Your task to perform on an android device: uninstall "Google Photos" Image 0: 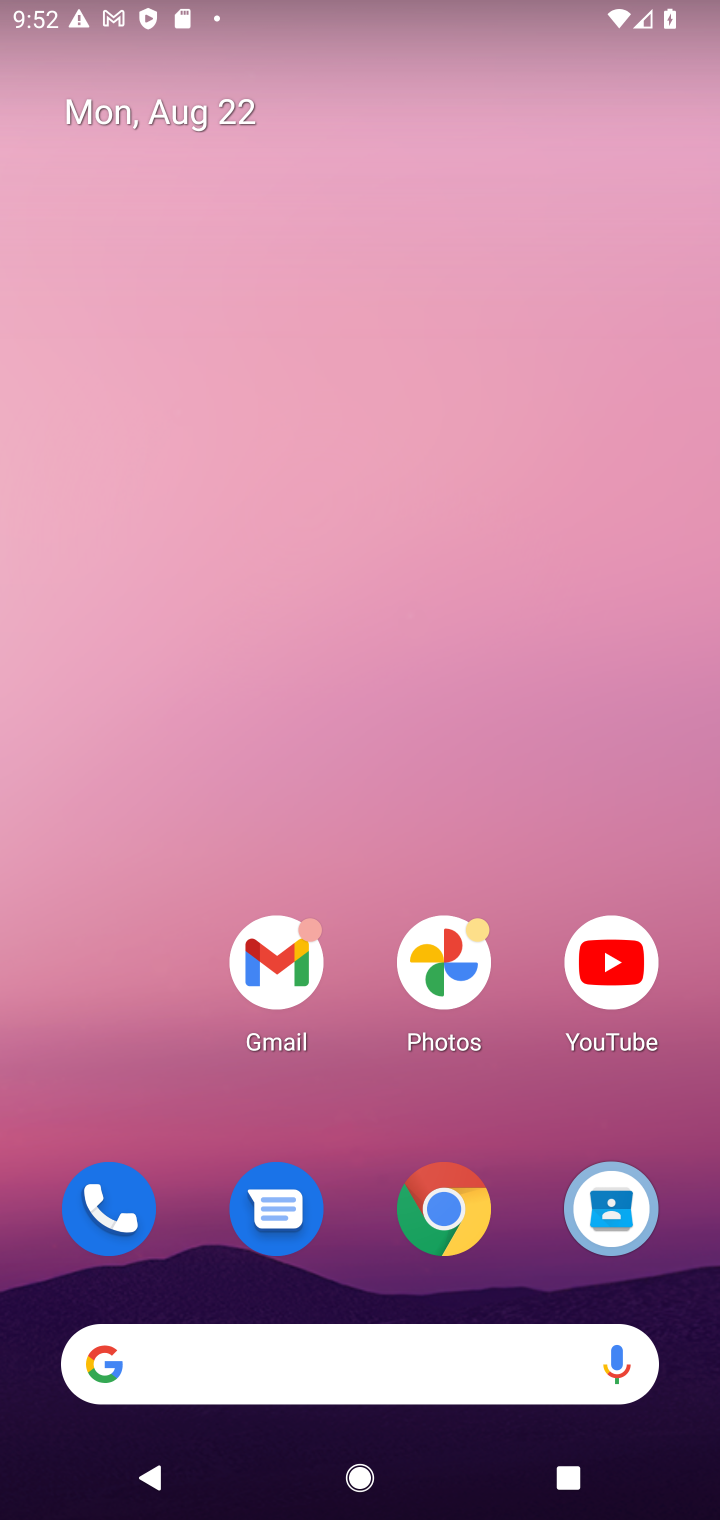
Step 0: click (412, 962)
Your task to perform on an android device: uninstall "Google Photos" Image 1: 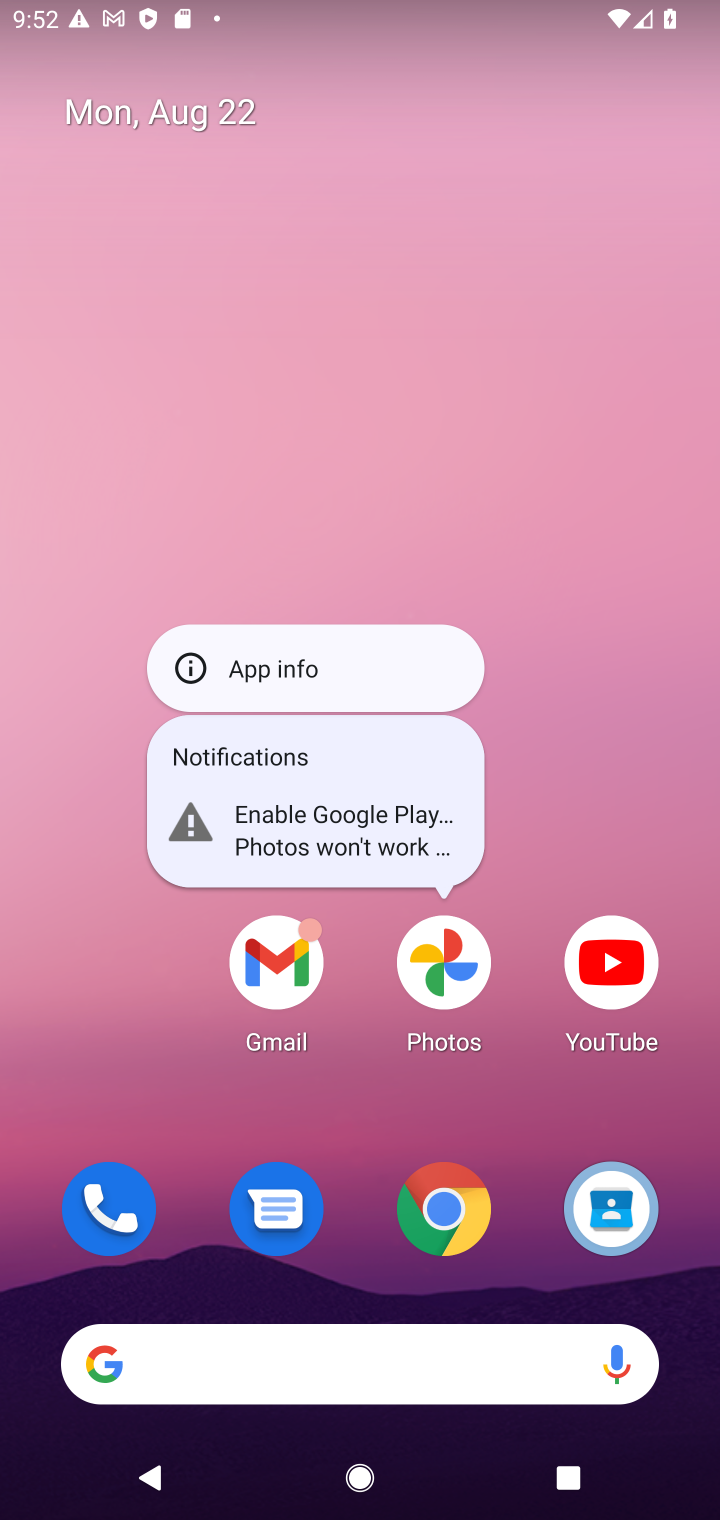
Step 1: task complete